Your task to perform on an android device: When is my next meeting? Image 0: 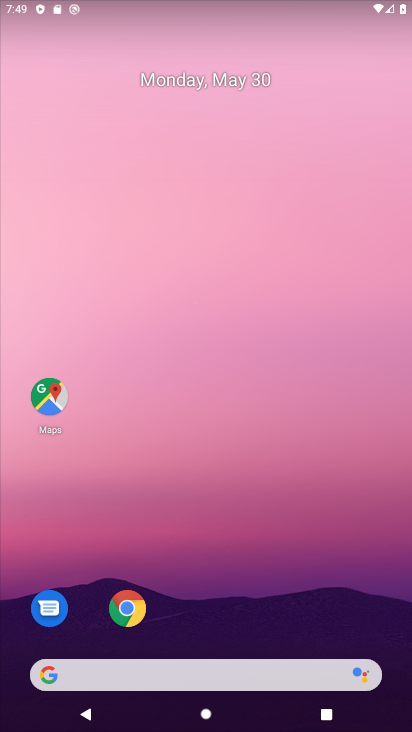
Step 0: drag from (236, 726) to (180, 116)
Your task to perform on an android device: When is my next meeting? Image 1: 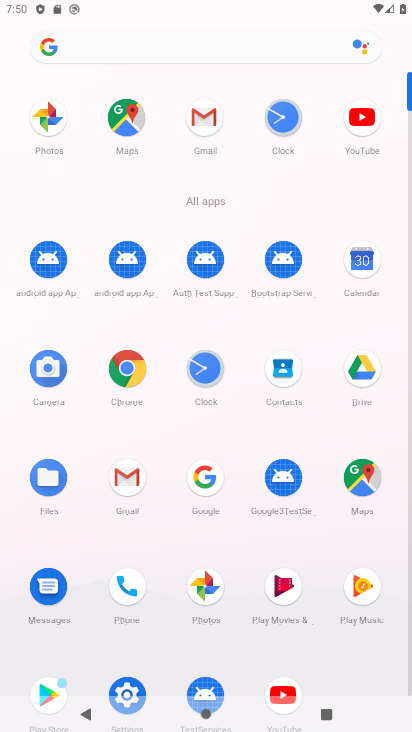
Step 1: click (361, 260)
Your task to perform on an android device: When is my next meeting? Image 2: 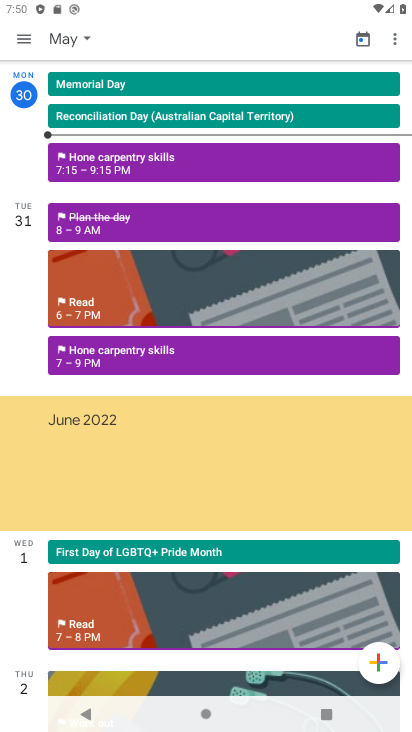
Step 2: click (86, 31)
Your task to perform on an android device: When is my next meeting? Image 3: 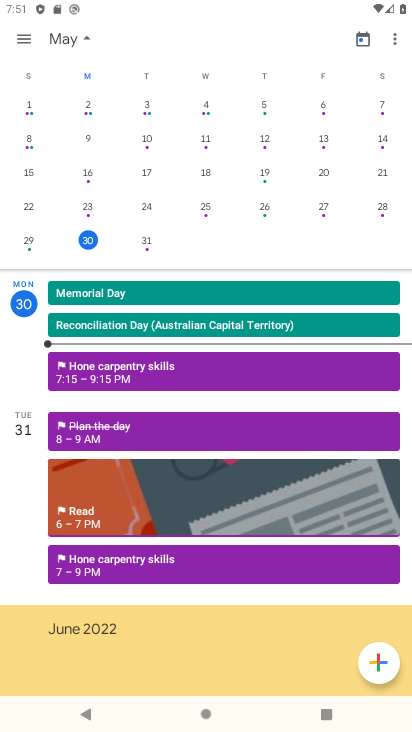
Step 3: click (144, 233)
Your task to perform on an android device: When is my next meeting? Image 4: 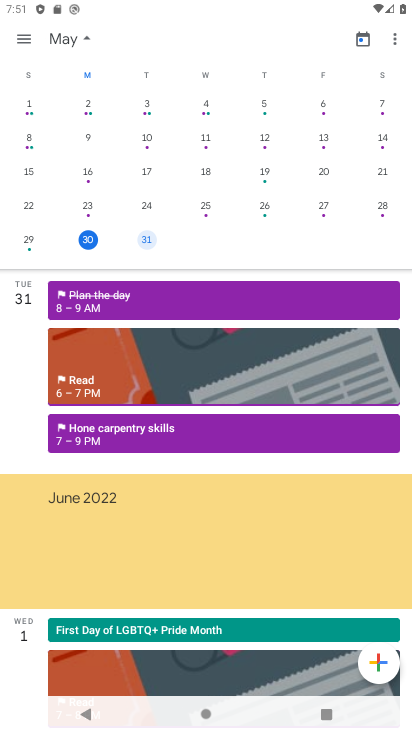
Step 4: click (84, 35)
Your task to perform on an android device: When is my next meeting? Image 5: 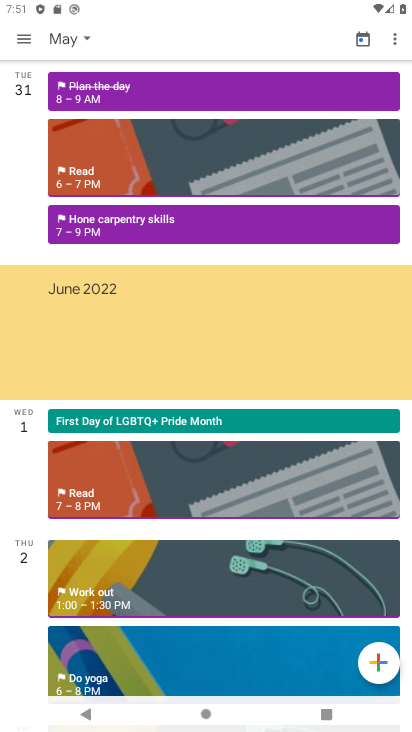
Step 5: task complete